Your task to perform on an android device: see creations saved in the google photos Image 0: 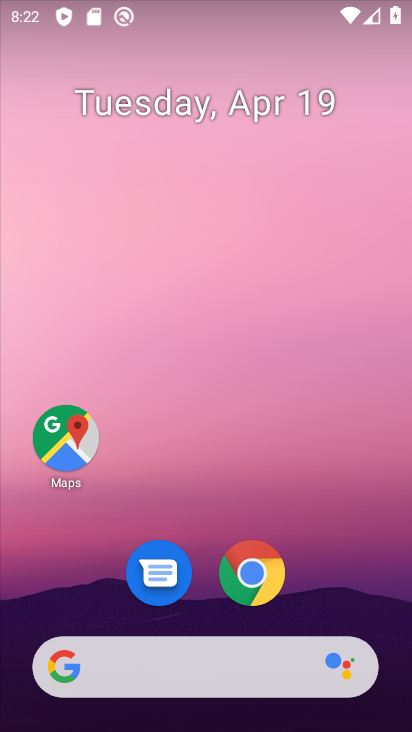
Step 0: drag from (310, 565) to (298, 54)
Your task to perform on an android device: see creations saved in the google photos Image 1: 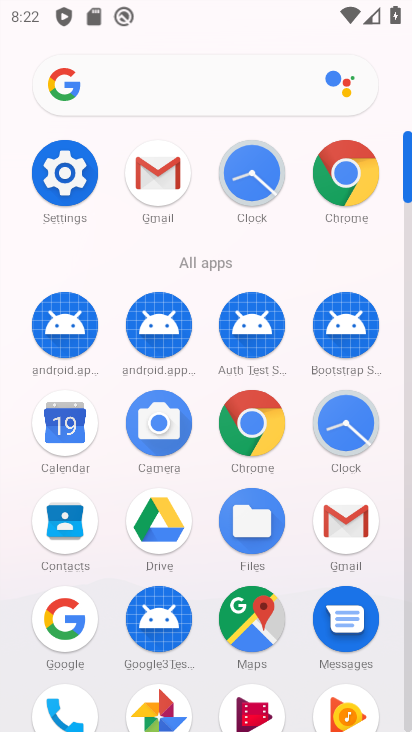
Step 1: click (143, 702)
Your task to perform on an android device: see creations saved in the google photos Image 2: 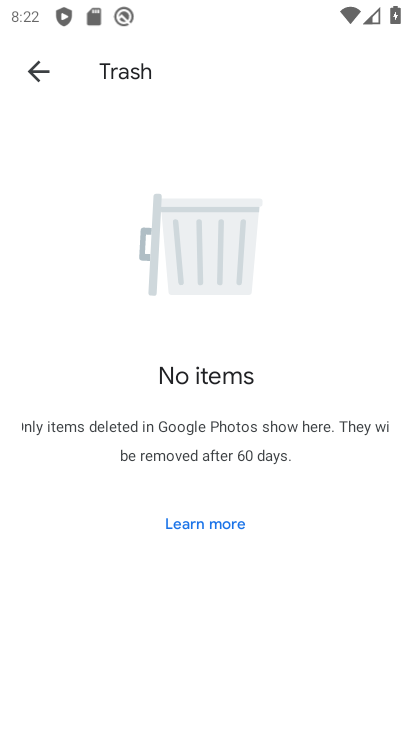
Step 2: click (42, 67)
Your task to perform on an android device: see creations saved in the google photos Image 3: 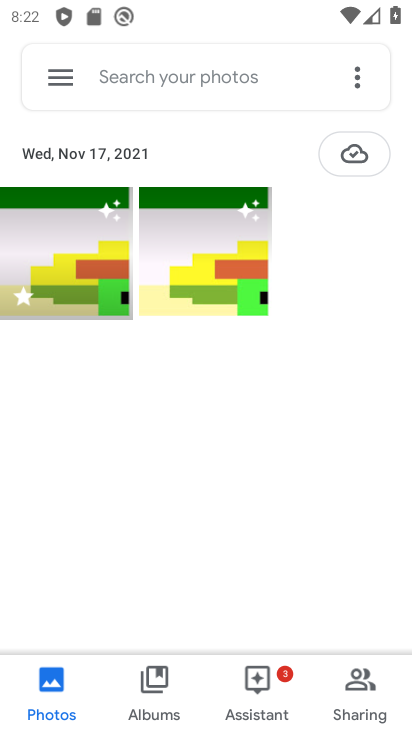
Step 3: click (138, 73)
Your task to perform on an android device: see creations saved in the google photos Image 4: 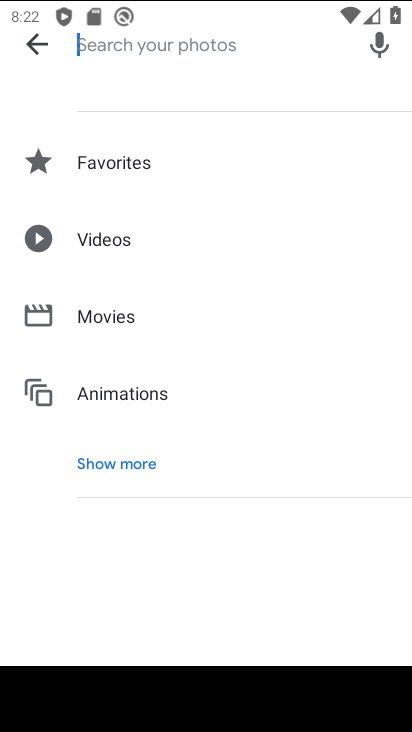
Step 4: click (105, 470)
Your task to perform on an android device: see creations saved in the google photos Image 5: 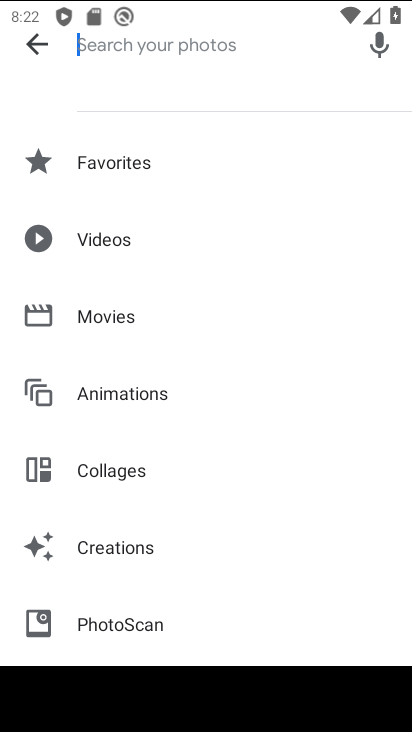
Step 5: click (97, 549)
Your task to perform on an android device: see creations saved in the google photos Image 6: 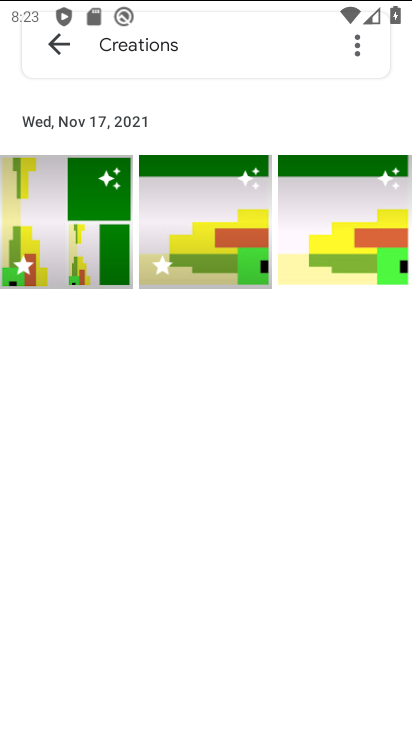
Step 6: task complete